Your task to perform on an android device: change alarm snooze length Image 0: 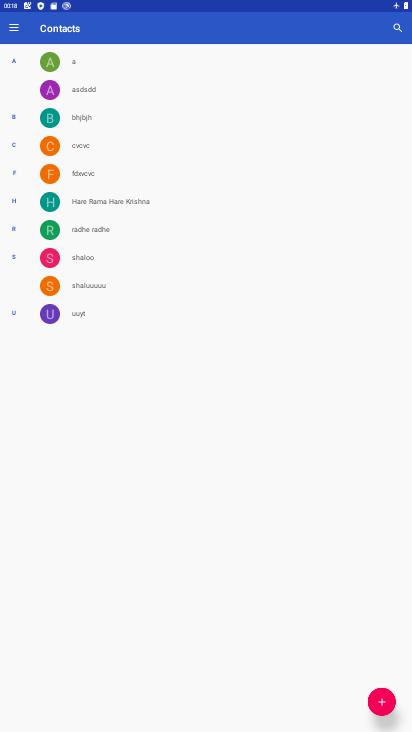
Step 0: press home button
Your task to perform on an android device: change alarm snooze length Image 1: 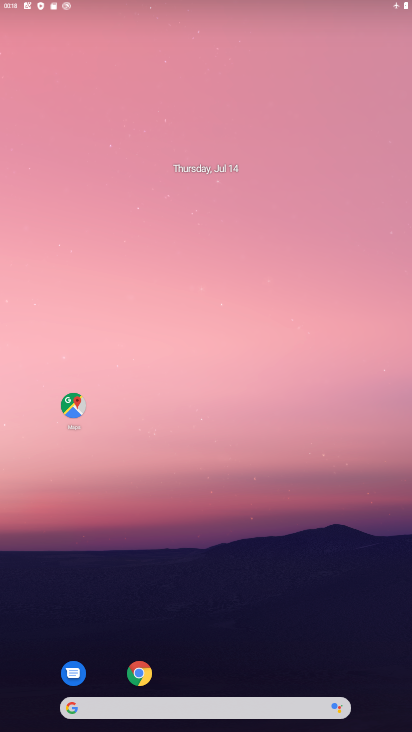
Step 1: drag from (188, 578) to (174, 176)
Your task to perform on an android device: change alarm snooze length Image 2: 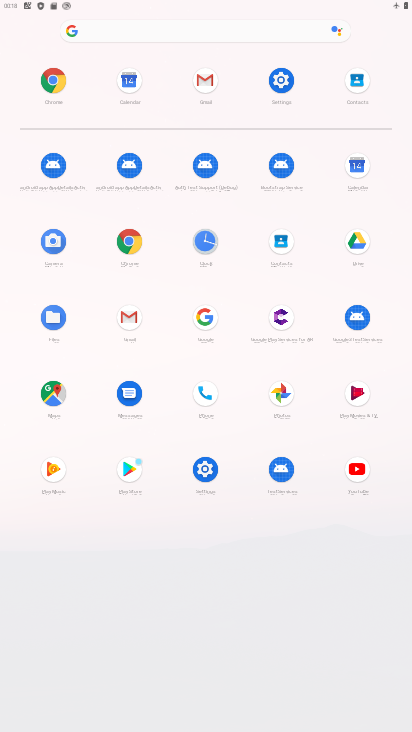
Step 2: click (219, 248)
Your task to perform on an android device: change alarm snooze length Image 3: 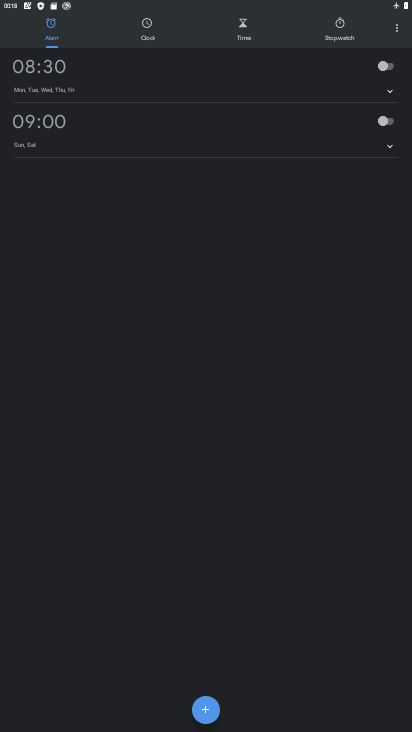
Step 3: click (397, 25)
Your task to perform on an android device: change alarm snooze length Image 4: 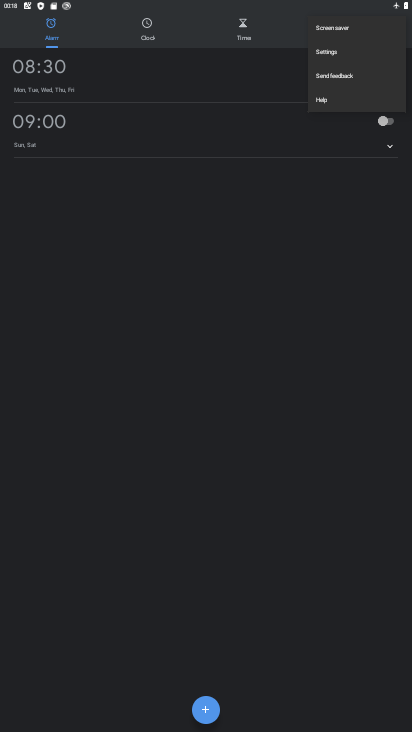
Step 4: click (335, 53)
Your task to perform on an android device: change alarm snooze length Image 5: 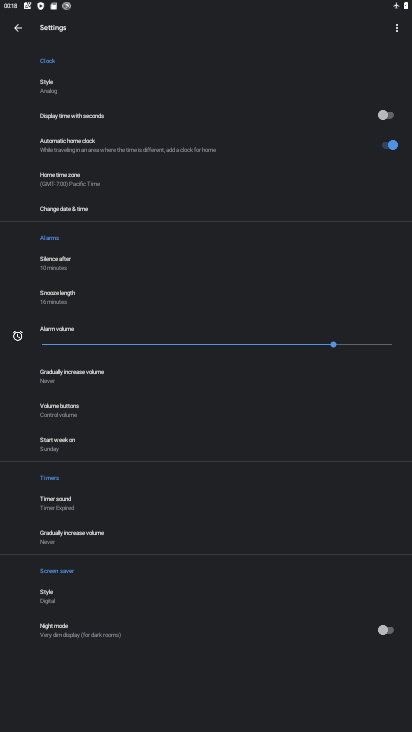
Step 5: click (56, 303)
Your task to perform on an android device: change alarm snooze length Image 6: 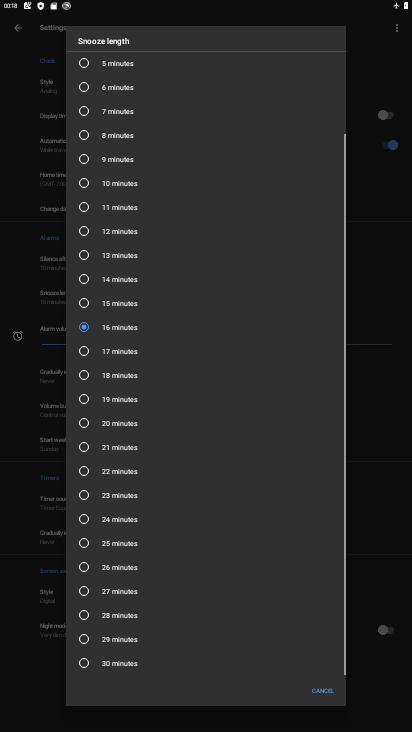
Step 6: click (100, 393)
Your task to perform on an android device: change alarm snooze length Image 7: 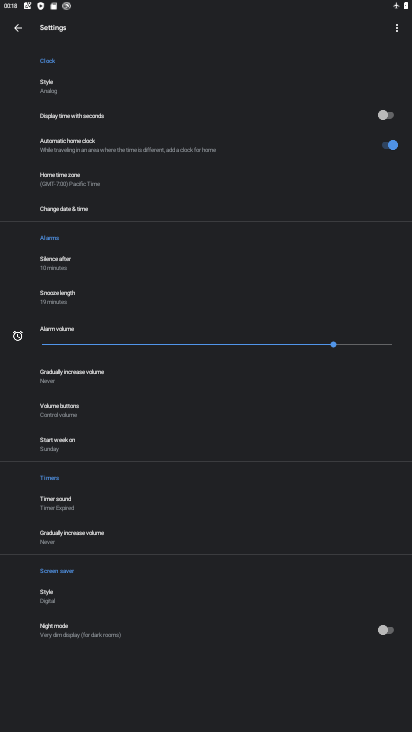
Step 7: task complete